Your task to perform on an android device: toggle location history Image 0: 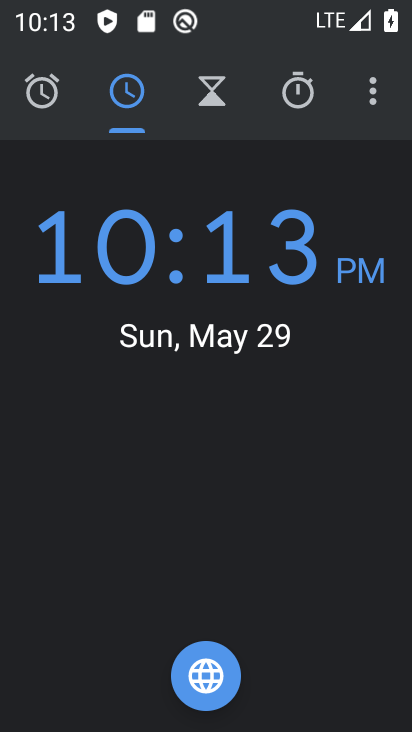
Step 0: press home button
Your task to perform on an android device: toggle location history Image 1: 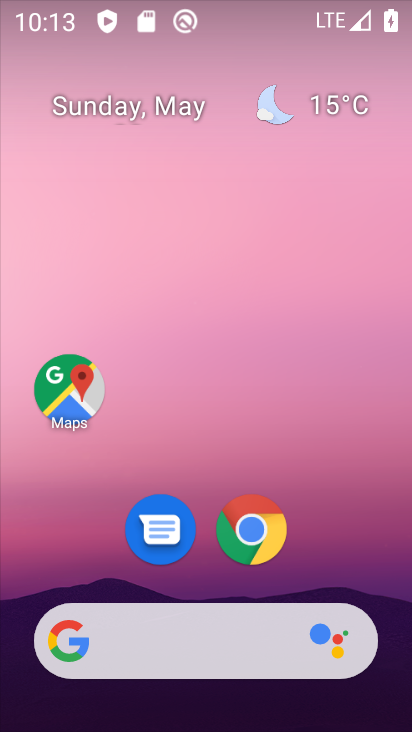
Step 1: drag from (198, 678) to (226, 197)
Your task to perform on an android device: toggle location history Image 2: 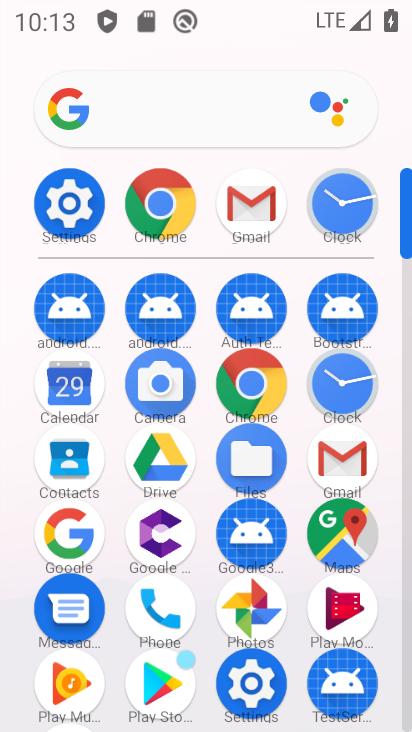
Step 2: click (69, 201)
Your task to perform on an android device: toggle location history Image 3: 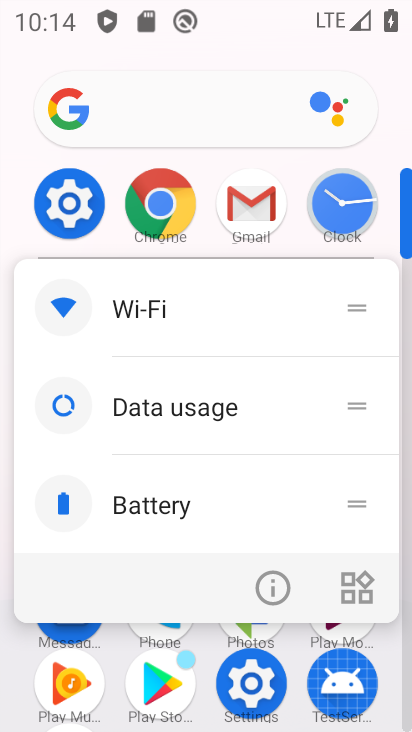
Step 3: click (81, 210)
Your task to perform on an android device: toggle location history Image 4: 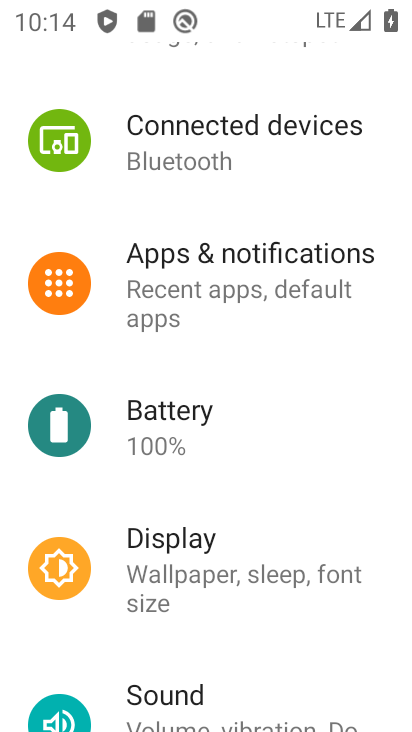
Step 4: drag from (183, 649) to (253, 216)
Your task to perform on an android device: toggle location history Image 5: 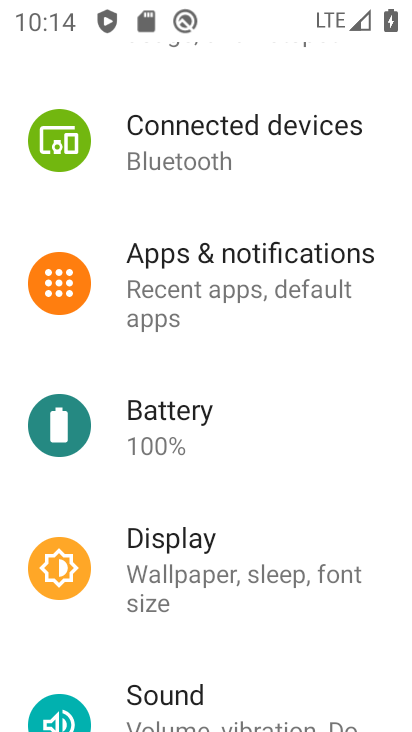
Step 5: drag from (237, 712) to (258, 306)
Your task to perform on an android device: toggle location history Image 6: 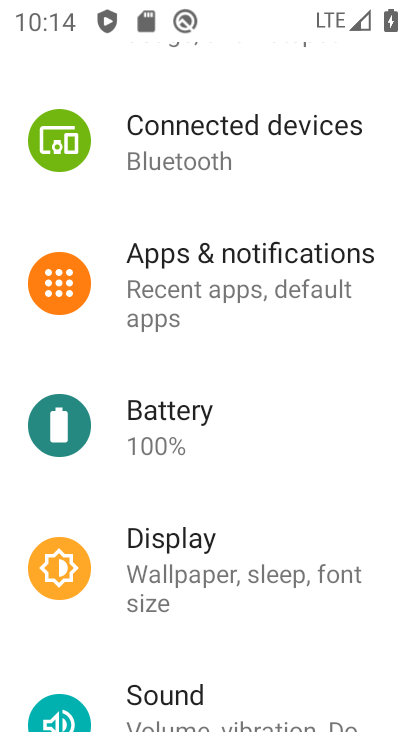
Step 6: drag from (165, 630) to (156, 72)
Your task to perform on an android device: toggle location history Image 7: 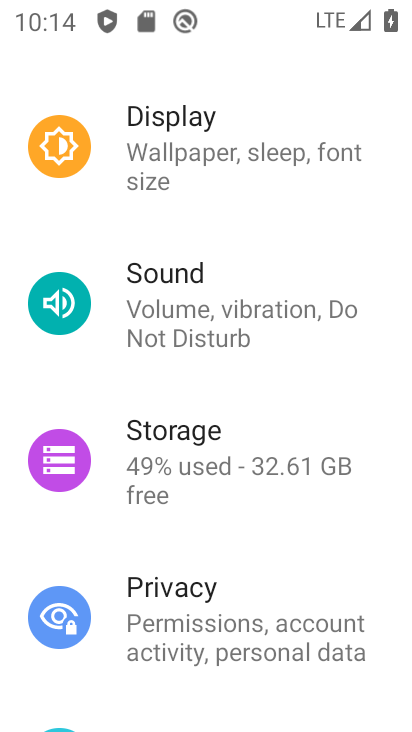
Step 7: drag from (160, 541) to (172, 127)
Your task to perform on an android device: toggle location history Image 8: 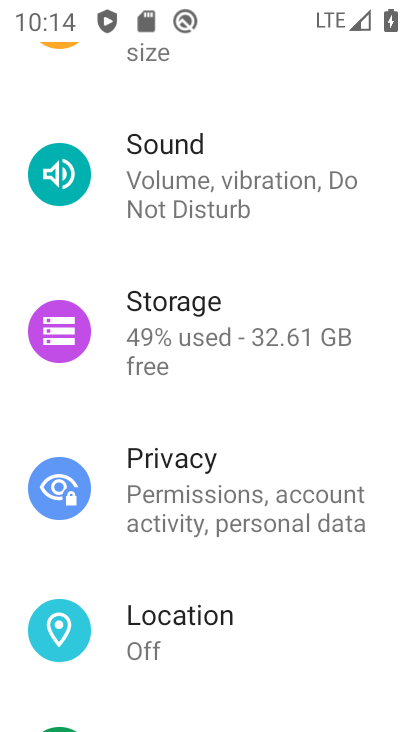
Step 8: click (167, 617)
Your task to perform on an android device: toggle location history Image 9: 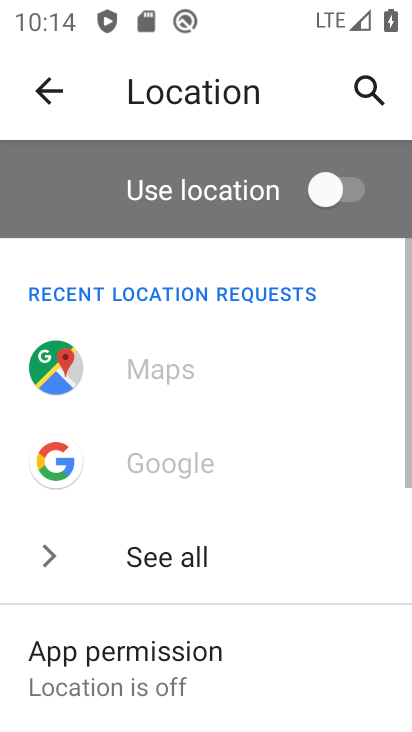
Step 9: drag from (170, 642) to (196, 65)
Your task to perform on an android device: toggle location history Image 10: 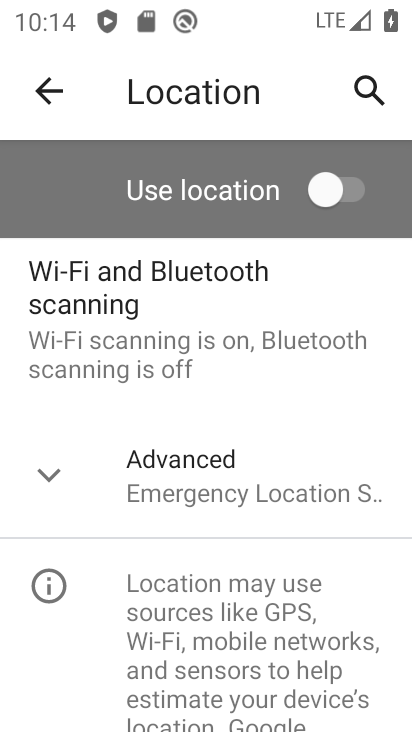
Step 10: click (198, 471)
Your task to perform on an android device: toggle location history Image 11: 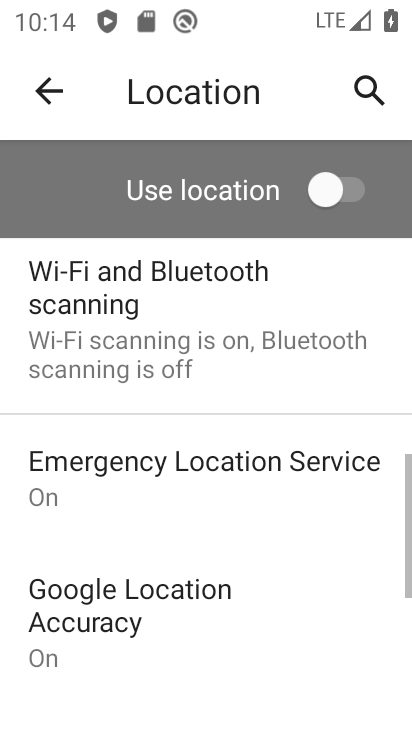
Step 11: drag from (170, 570) to (195, 142)
Your task to perform on an android device: toggle location history Image 12: 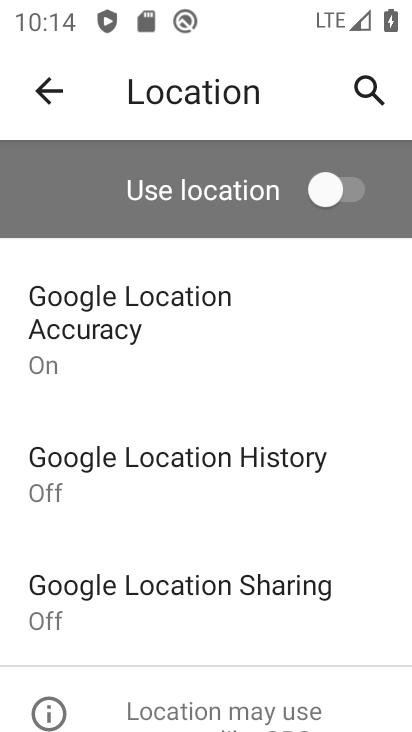
Step 12: click (228, 480)
Your task to perform on an android device: toggle location history Image 13: 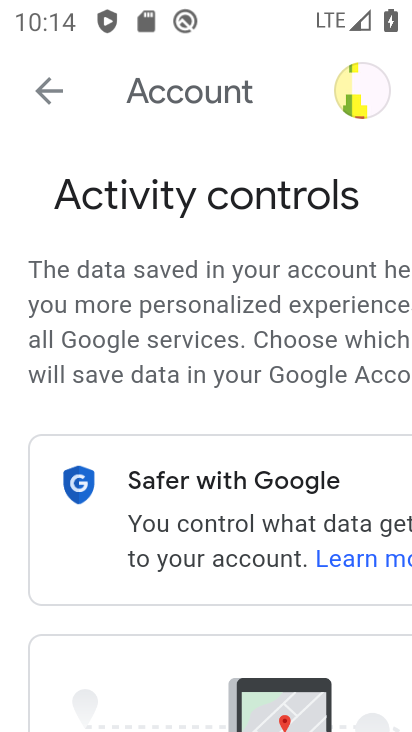
Step 13: task complete